Your task to perform on an android device: toggle translation in the chrome app Image 0: 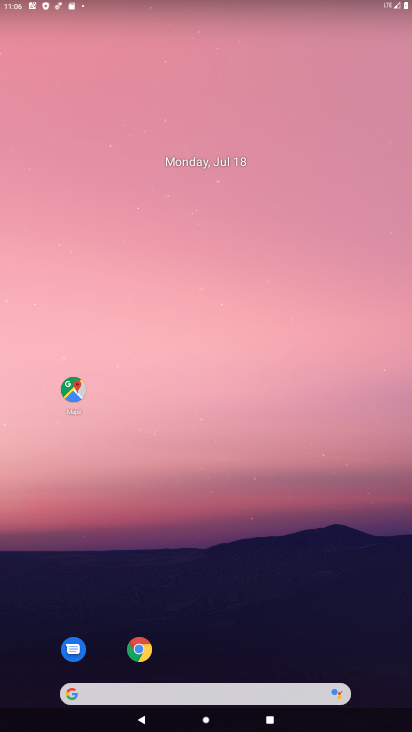
Step 0: click (139, 647)
Your task to perform on an android device: toggle translation in the chrome app Image 1: 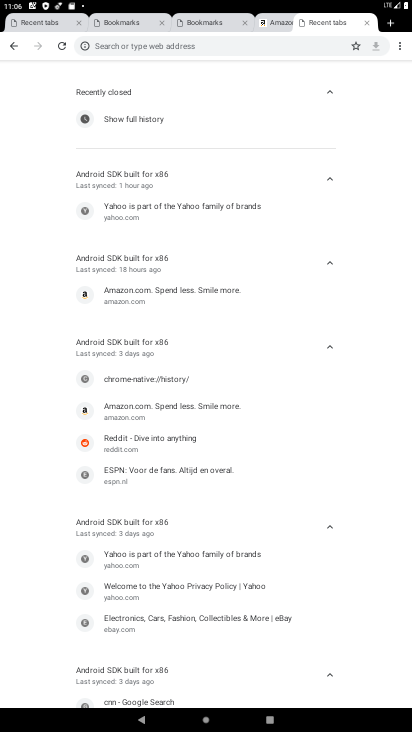
Step 1: click (406, 44)
Your task to perform on an android device: toggle translation in the chrome app Image 2: 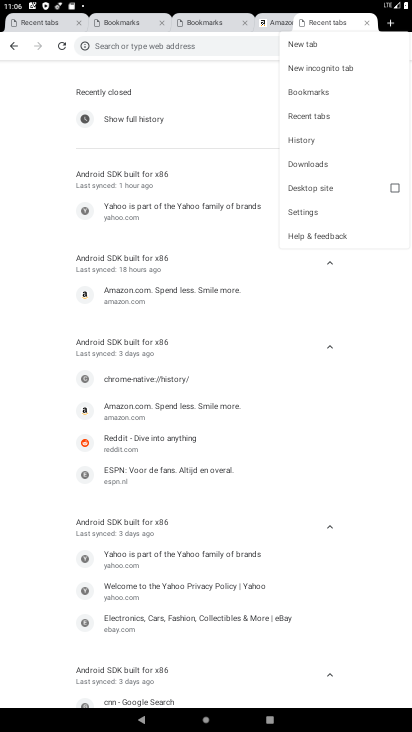
Step 2: click (317, 213)
Your task to perform on an android device: toggle translation in the chrome app Image 3: 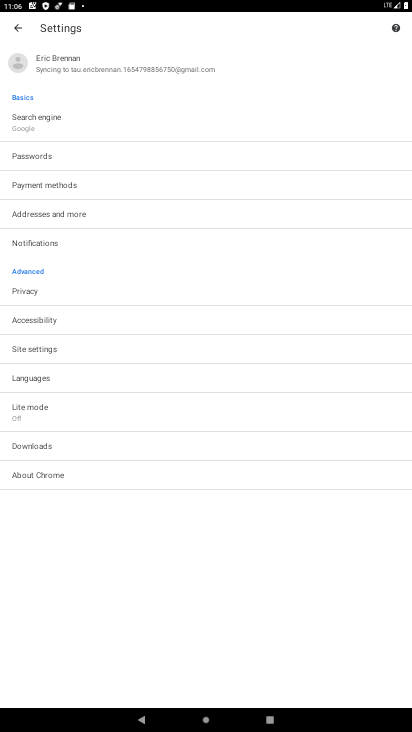
Step 3: click (95, 374)
Your task to perform on an android device: toggle translation in the chrome app Image 4: 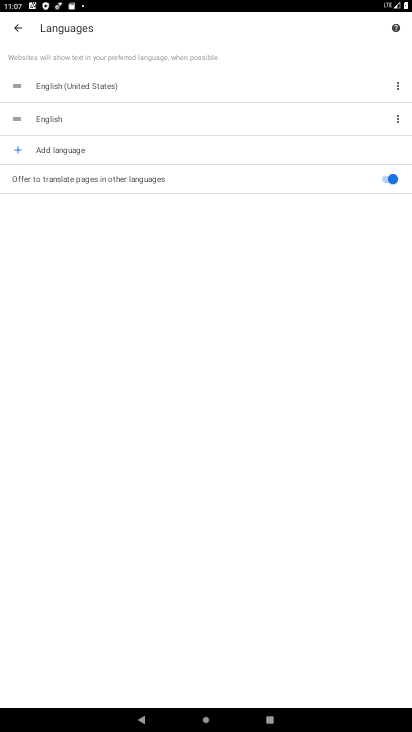
Step 4: click (388, 174)
Your task to perform on an android device: toggle translation in the chrome app Image 5: 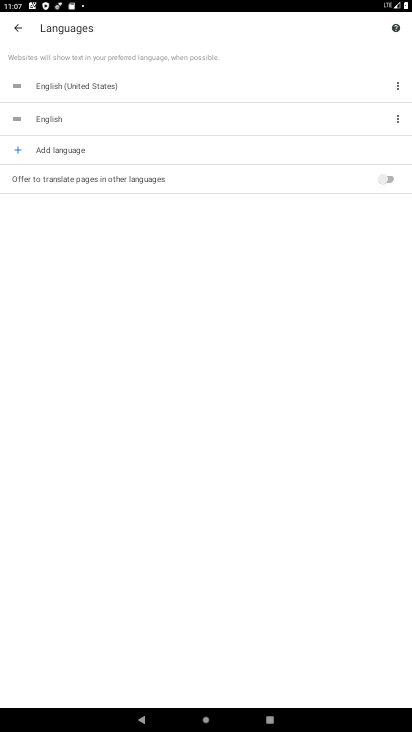
Step 5: task complete